Your task to perform on an android device: add a contact Image 0: 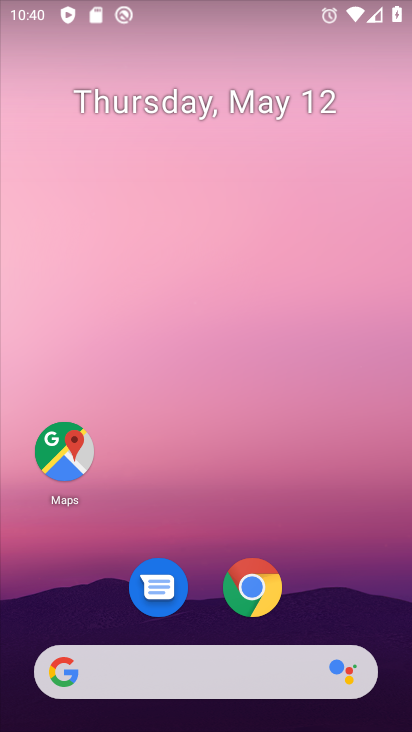
Step 0: drag from (367, 560) to (377, 75)
Your task to perform on an android device: add a contact Image 1: 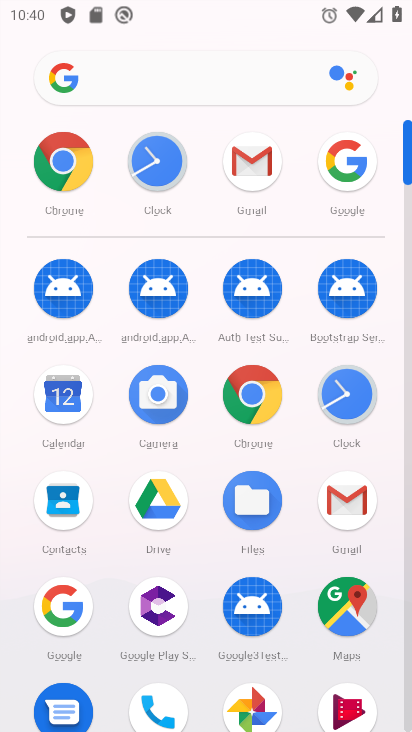
Step 1: drag from (392, 529) to (397, 214)
Your task to perform on an android device: add a contact Image 2: 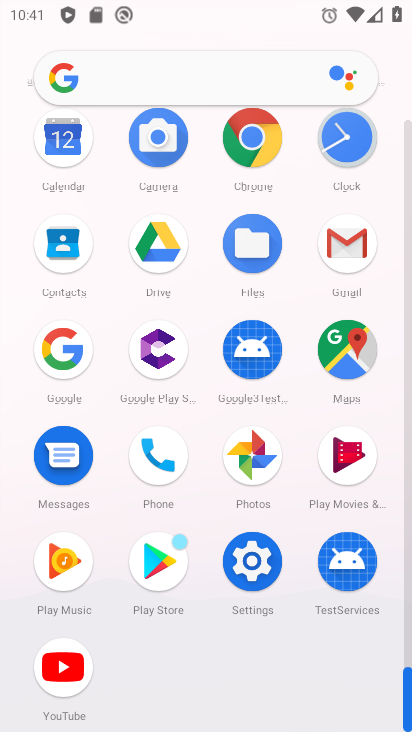
Step 2: click (151, 458)
Your task to perform on an android device: add a contact Image 3: 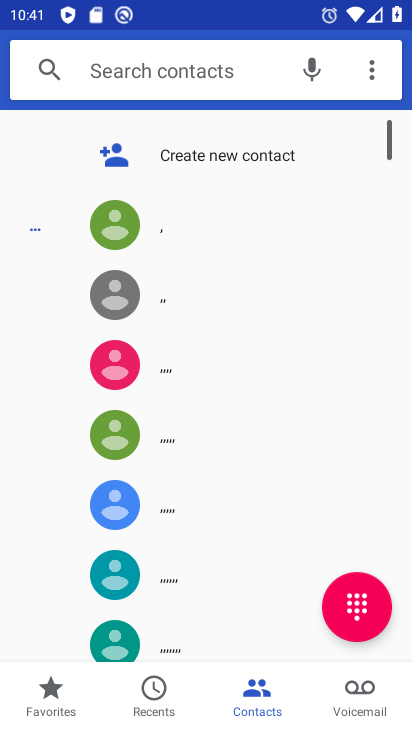
Step 3: click (213, 154)
Your task to perform on an android device: add a contact Image 4: 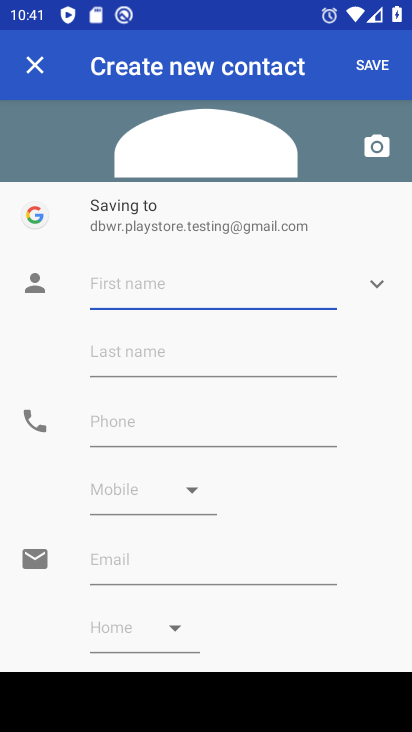
Step 4: click (186, 429)
Your task to perform on an android device: add a contact Image 5: 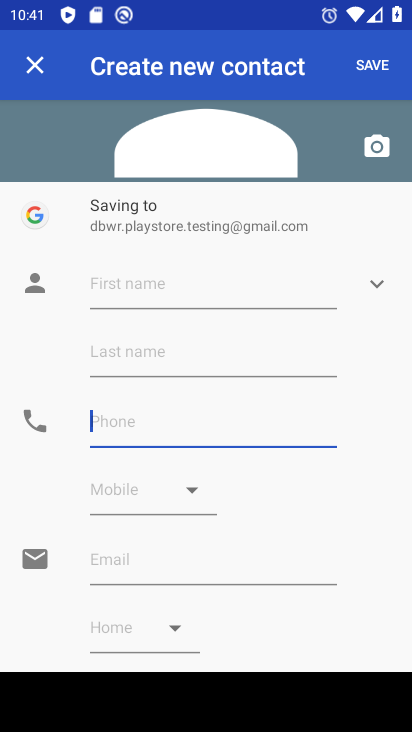
Step 5: type "536363663"
Your task to perform on an android device: add a contact Image 6: 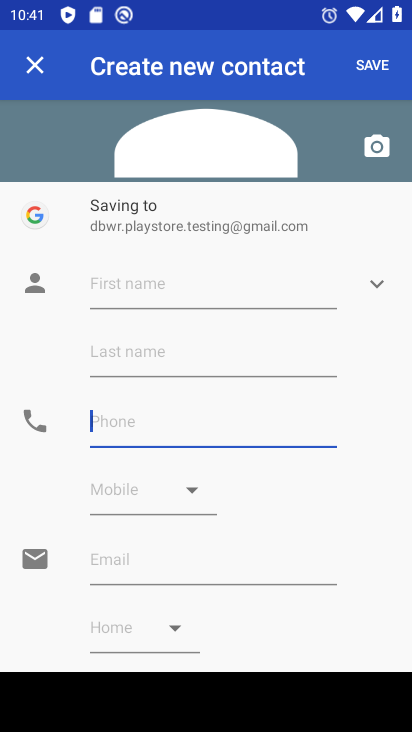
Step 6: click (164, 279)
Your task to perform on an android device: add a contact Image 7: 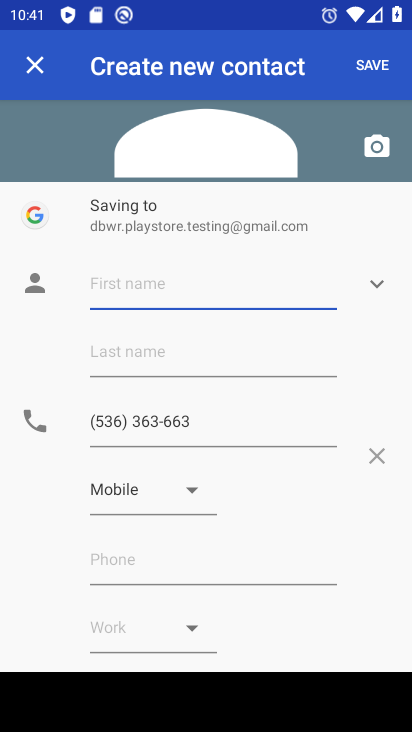
Step 7: type "aratat"
Your task to perform on an android device: add a contact Image 8: 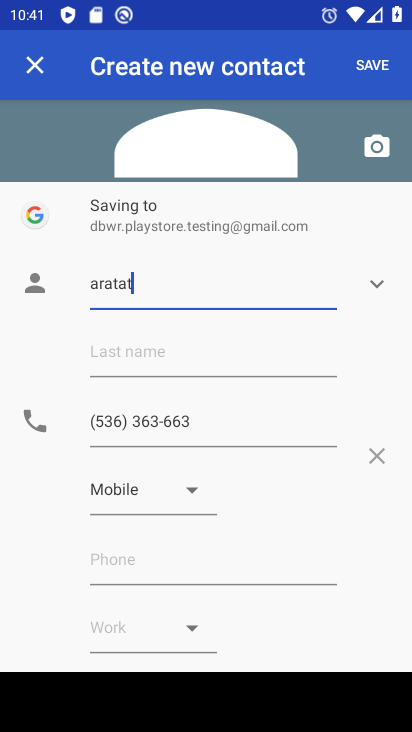
Step 8: click (370, 56)
Your task to perform on an android device: add a contact Image 9: 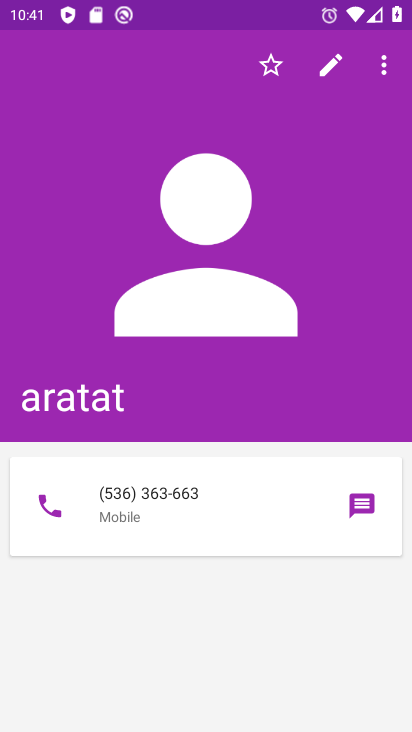
Step 9: task complete